Your task to perform on an android device: Go to Yahoo.com Image 0: 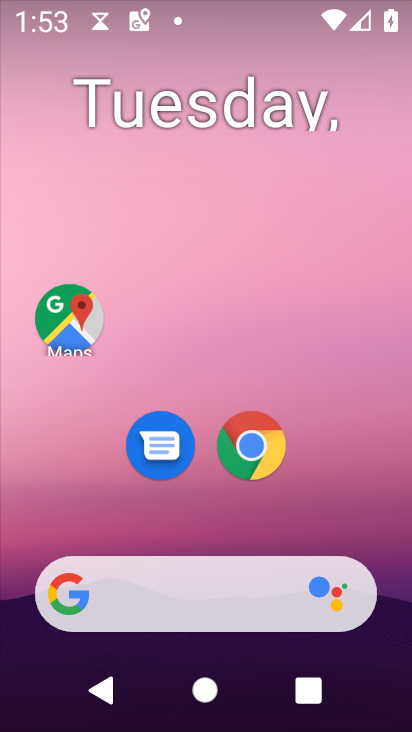
Step 0: drag from (309, 598) to (343, 7)
Your task to perform on an android device: Go to Yahoo.com Image 1: 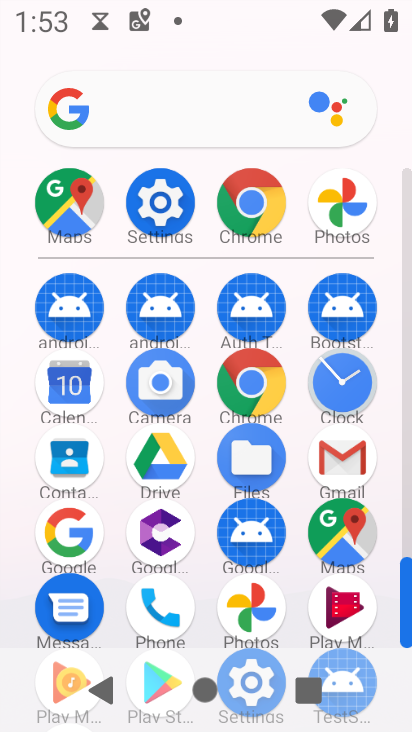
Step 1: click (262, 389)
Your task to perform on an android device: Go to Yahoo.com Image 2: 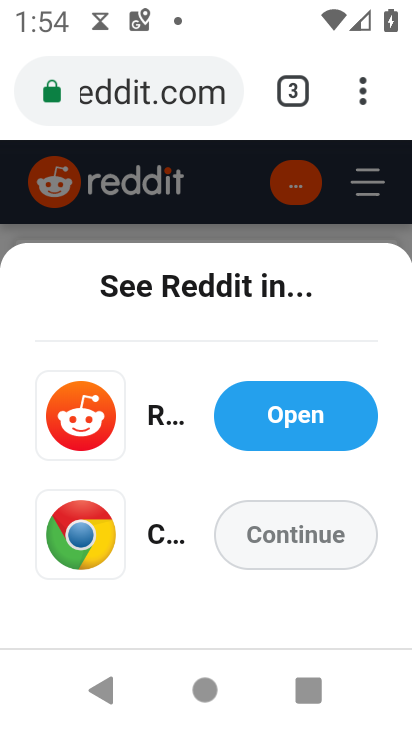
Step 2: click (214, 83)
Your task to perform on an android device: Go to Yahoo.com Image 3: 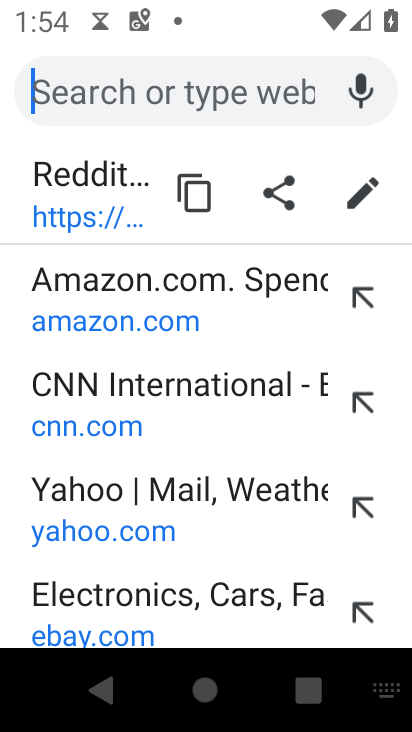
Step 3: type "yahoocom"
Your task to perform on an android device: Go to Yahoo.com Image 4: 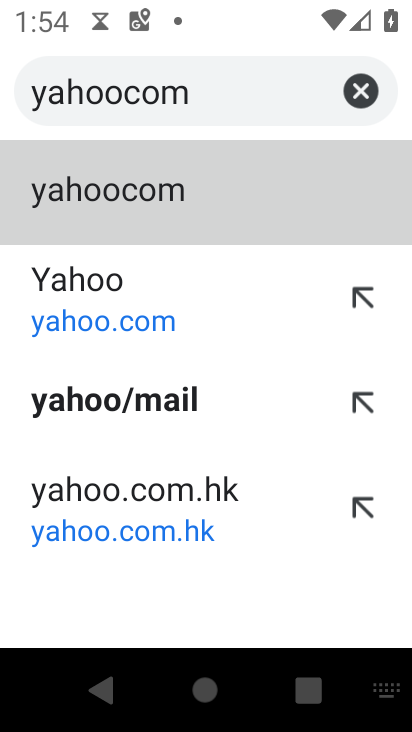
Step 4: click (196, 316)
Your task to perform on an android device: Go to Yahoo.com Image 5: 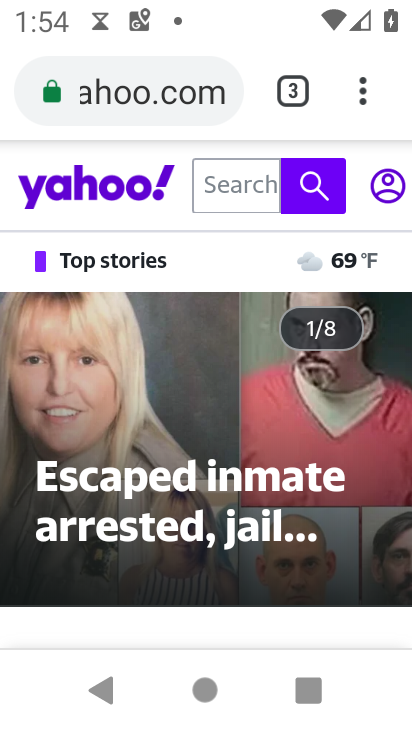
Step 5: task complete